Your task to perform on an android device: show emergency info Image 0: 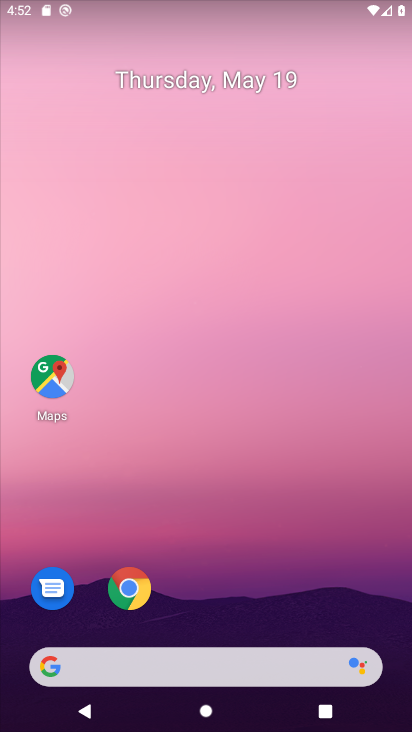
Step 0: drag from (221, 623) to (233, 265)
Your task to perform on an android device: show emergency info Image 1: 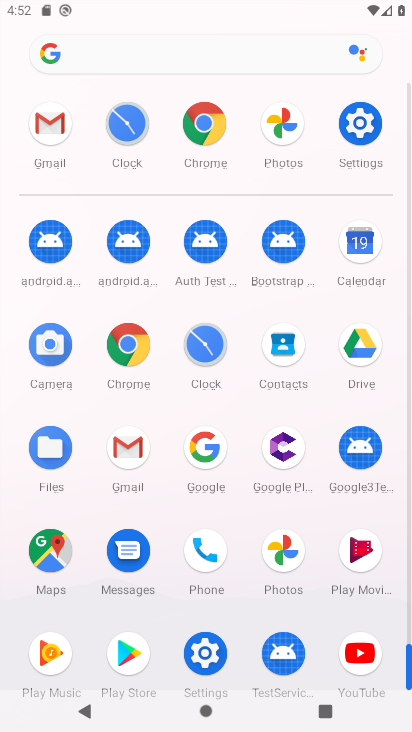
Step 1: click (207, 648)
Your task to perform on an android device: show emergency info Image 2: 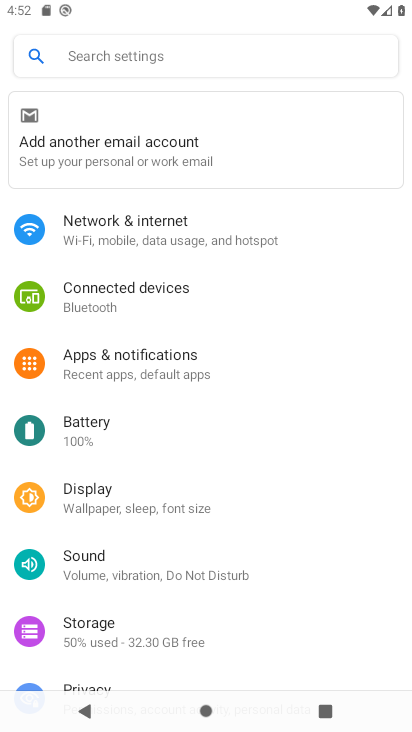
Step 2: drag from (175, 640) to (207, 178)
Your task to perform on an android device: show emergency info Image 3: 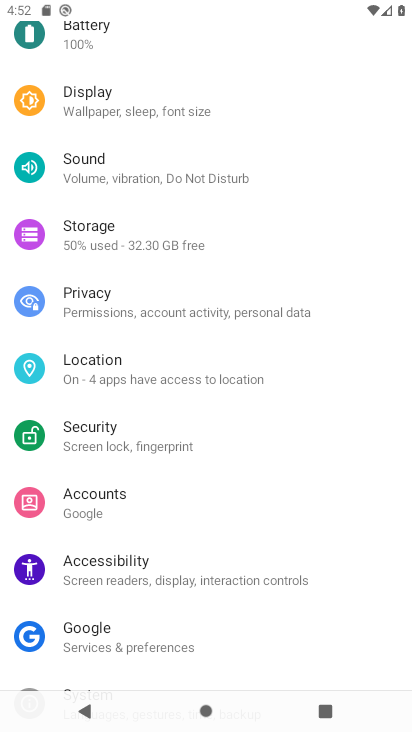
Step 3: drag from (152, 492) to (179, 54)
Your task to perform on an android device: show emergency info Image 4: 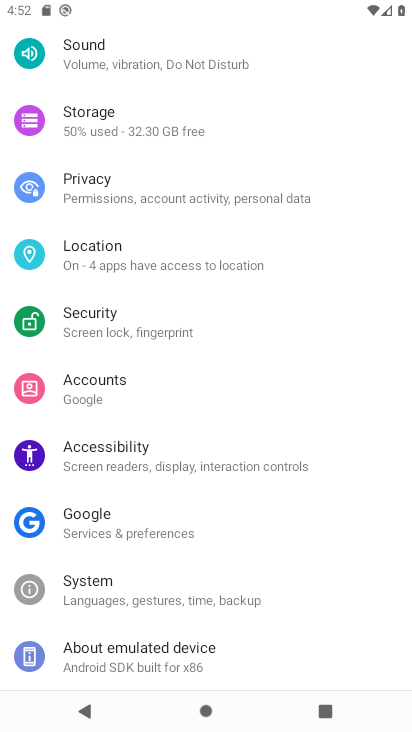
Step 4: click (126, 666)
Your task to perform on an android device: show emergency info Image 5: 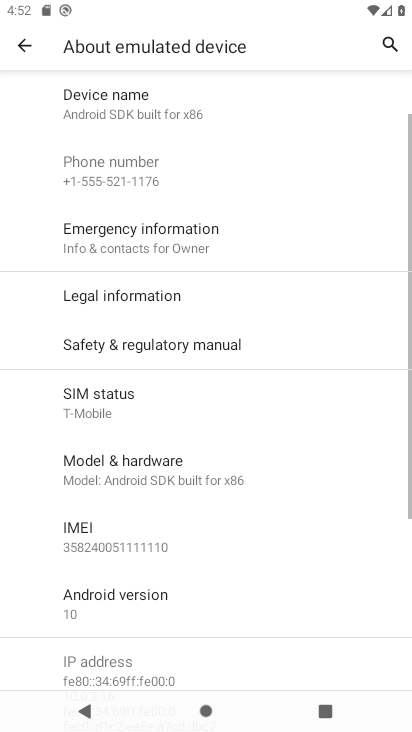
Step 5: drag from (170, 569) to (195, 519)
Your task to perform on an android device: show emergency info Image 6: 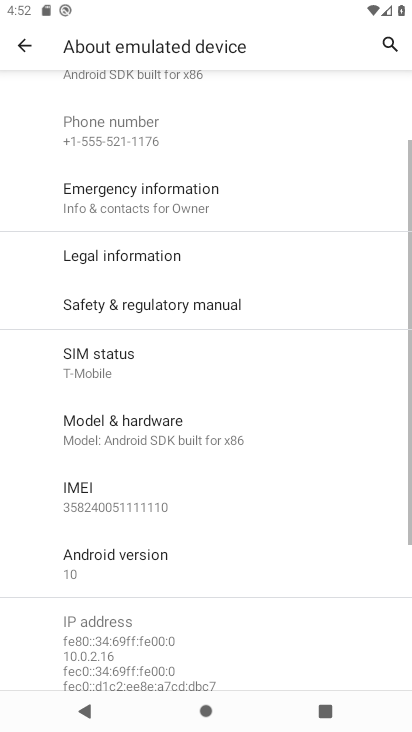
Step 6: click (178, 200)
Your task to perform on an android device: show emergency info Image 7: 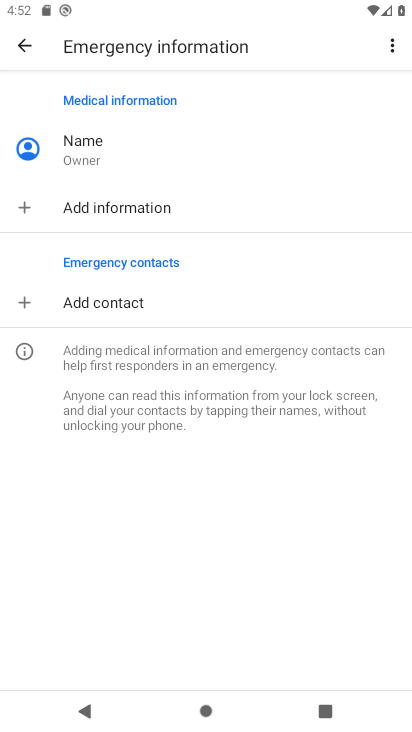
Step 7: task complete